Your task to perform on an android device: Check the weather Image 0: 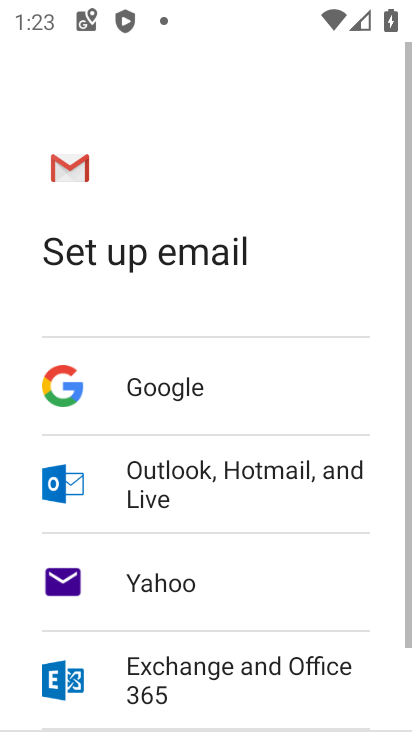
Step 0: press home button
Your task to perform on an android device: Check the weather Image 1: 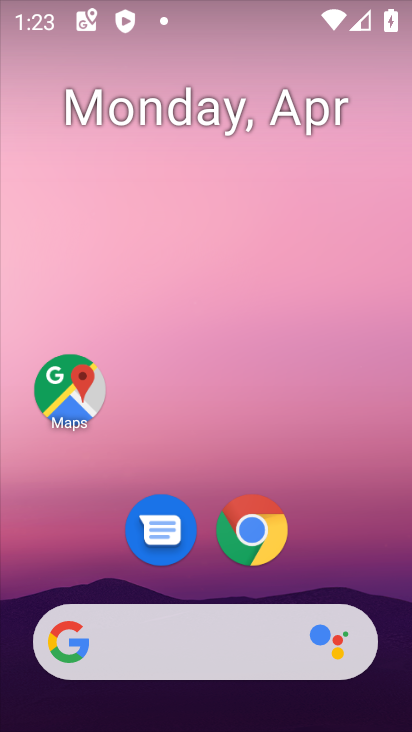
Step 1: click (206, 644)
Your task to perform on an android device: Check the weather Image 2: 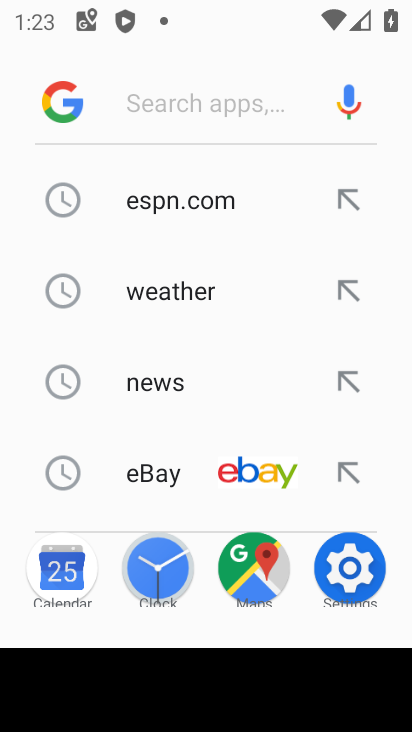
Step 2: click (179, 284)
Your task to perform on an android device: Check the weather Image 3: 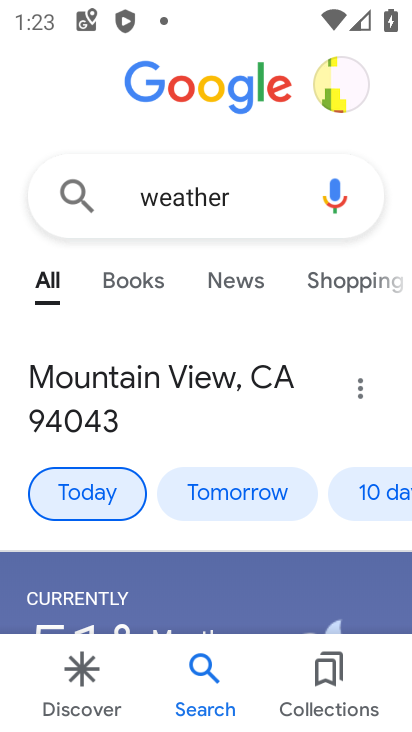
Step 3: task complete